Your task to perform on an android device: What's on my calendar today? Image 0: 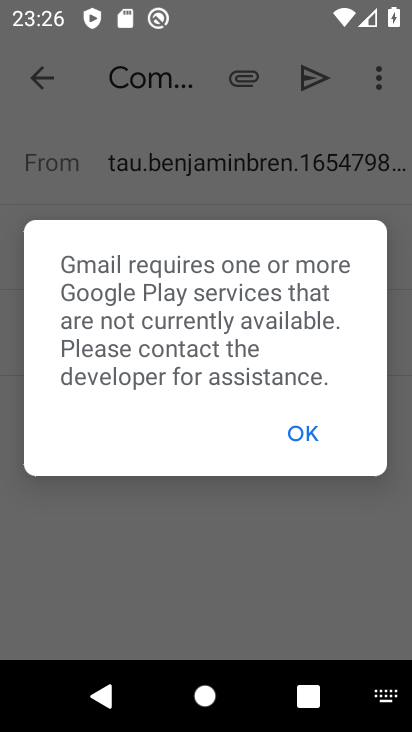
Step 0: press back button
Your task to perform on an android device: What's on my calendar today? Image 1: 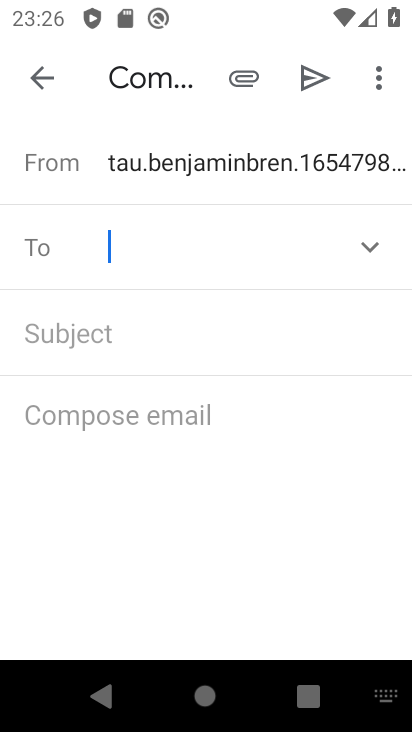
Step 1: press home button
Your task to perform on an android device: What's on my calendar today? Image 2: 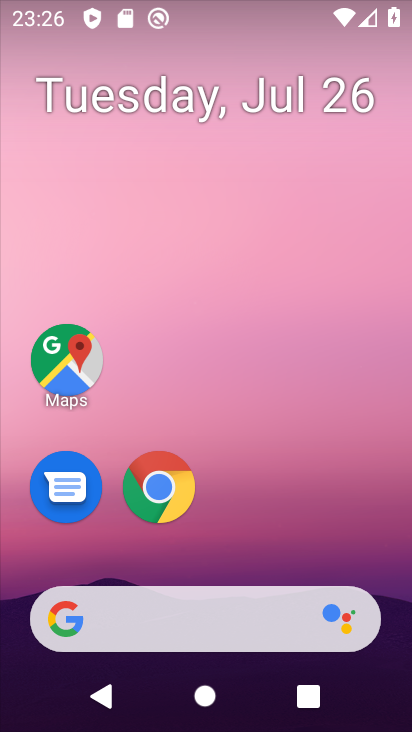
Step 2: drag from (295, 484) to (325, 18)
Your task to perform on an android device: What's on my calendar today? Image 3: 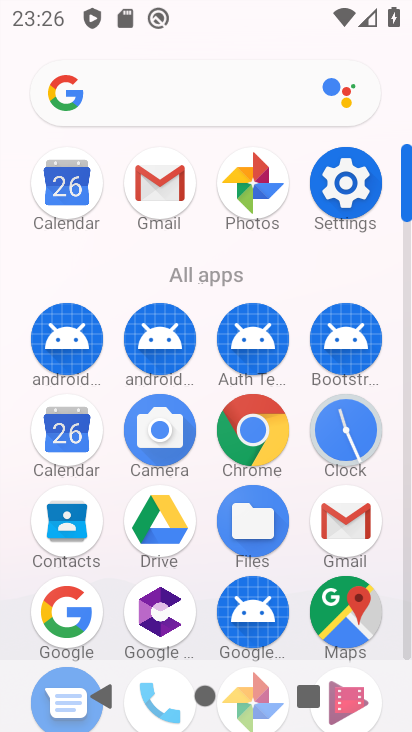
Step 3: click (80, 443)
Your task to perform on an android device: What's on my calendar today? Image 4: 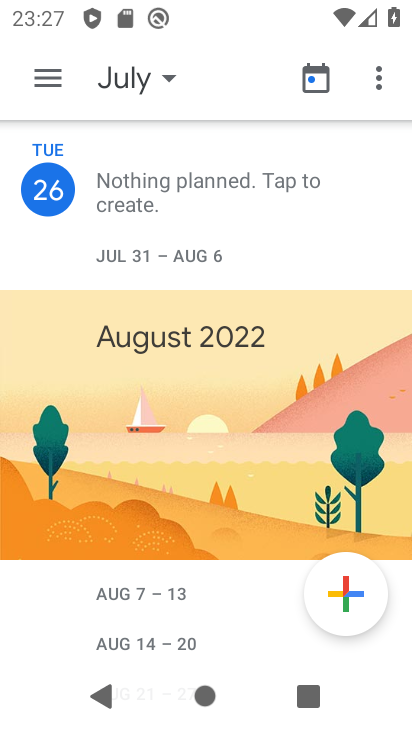
Step 4: task complete